Your task to perform on an android device: Open location settings Image 0: 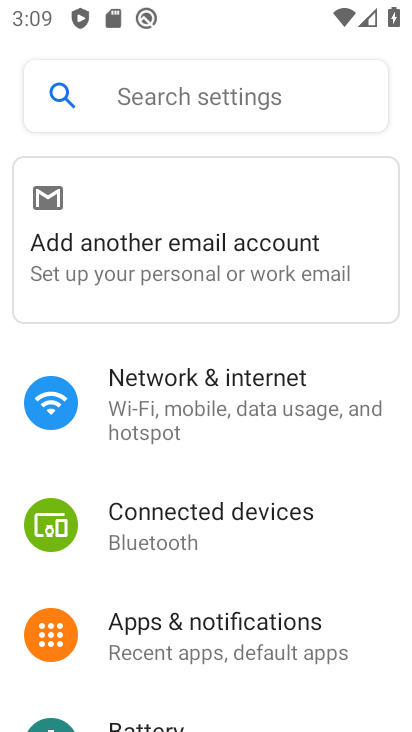
Step 0: press home button
Your task to perform on an android device: Open location settings Image 1: 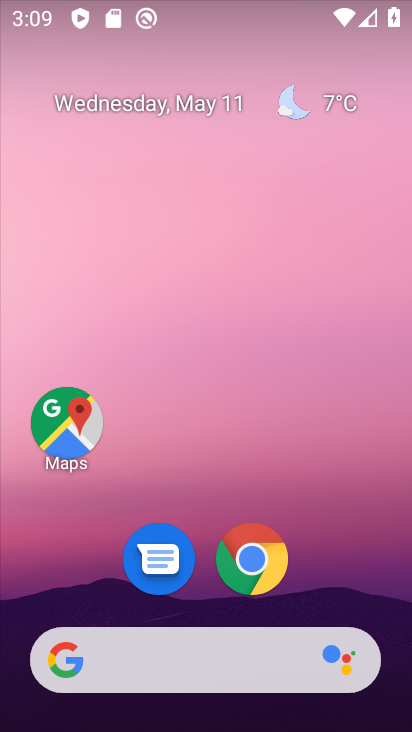
Step 1: drag from (174, 616) to (263, 140)
Your task to perform on an android device: Open location settings Image 2: 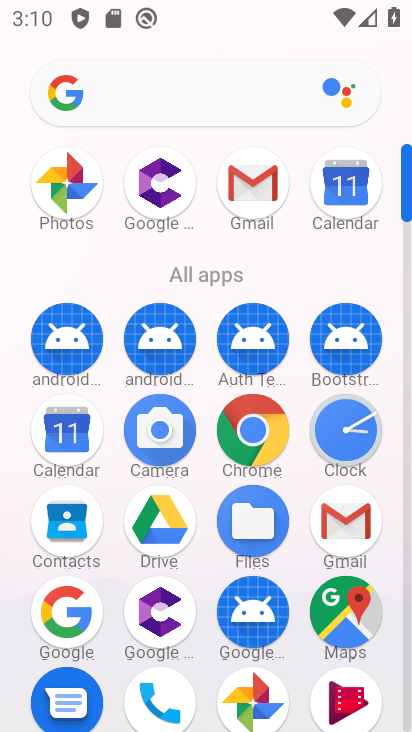
Step 2: drag from (212, 632) to (199, 330)
Your task to perform on an android device: Open location settings Image 3: 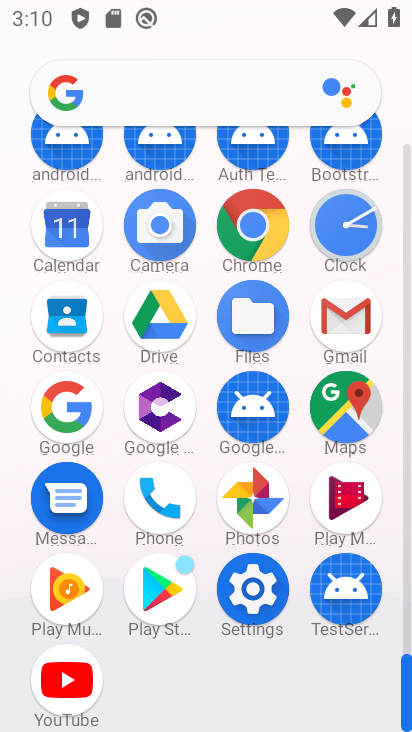
Step 3: click (261, 587)
Your task to perform on an android device: Open location settings Image 4: 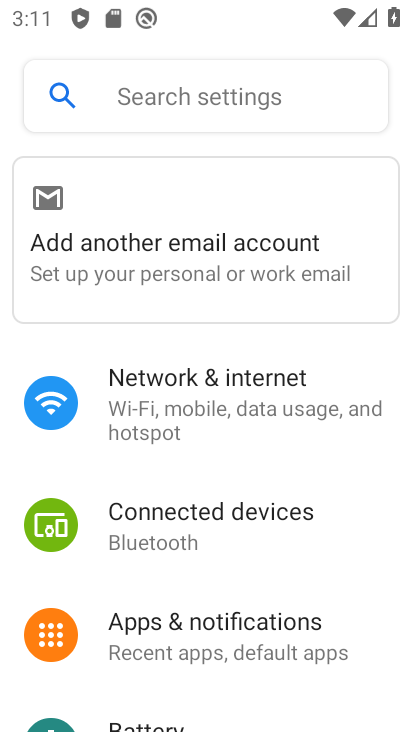
Step 4: drag from (205, 678) to (207, 348)
Your task to perform on an android device: Open location settings Image 5: 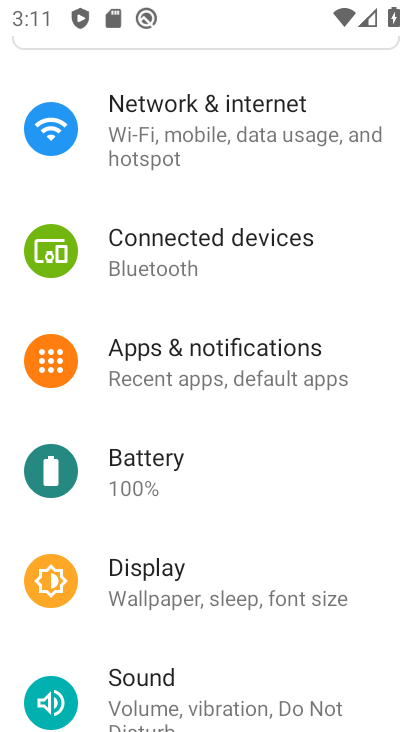
Step 5: drag from (181, 692) to (207, 329)
Your task to perform on an android device: Open location settings Image 6: 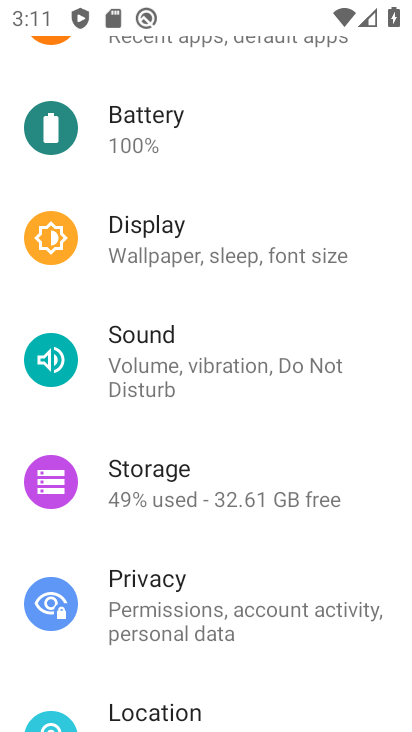
Step 6: drag from (226, 654) to (247, 375)
Your task to perform on an android device: Open location settings Image 7: 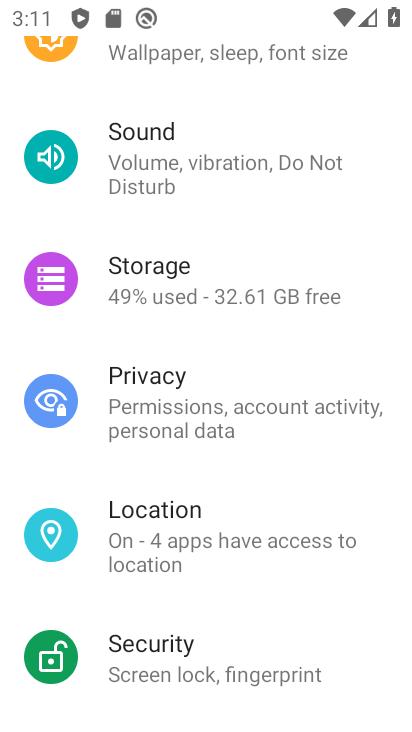
Step 7: drag from (242, 659) to (296, 287)
Your task to perform on an android device: Open location settings Image 8: 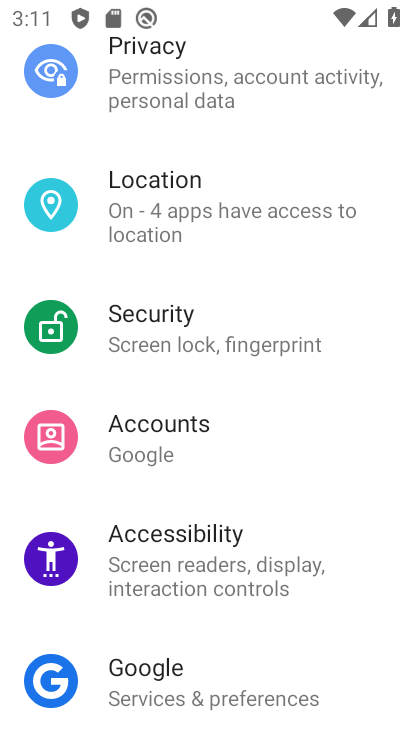
Step 8: click (119, 230)
Your task to perform on an android device: Open location settings Image 9: 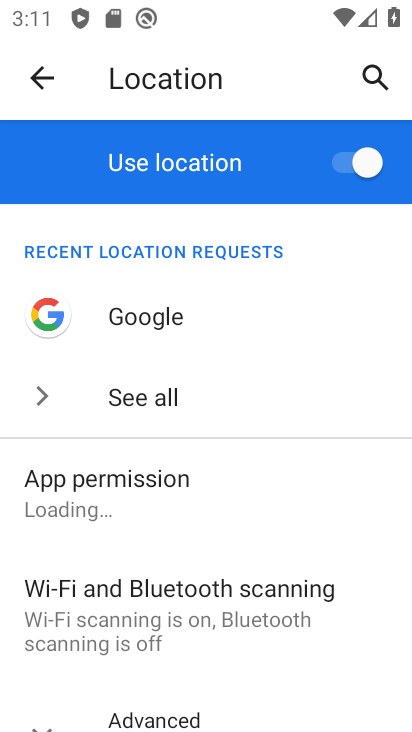
Step 9: task complete